Your task to perform on an android device: turn on showing notifications on the lock screen Image 0: 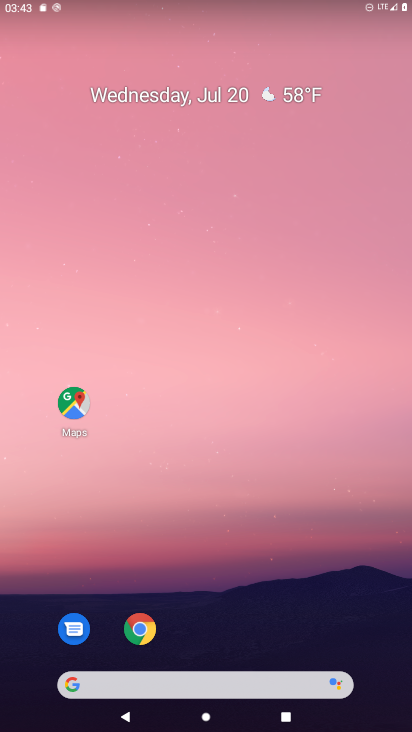
Step 0: press home button
Your task to perform on an android device: turn on showing notifications on the lock screen Image 1: 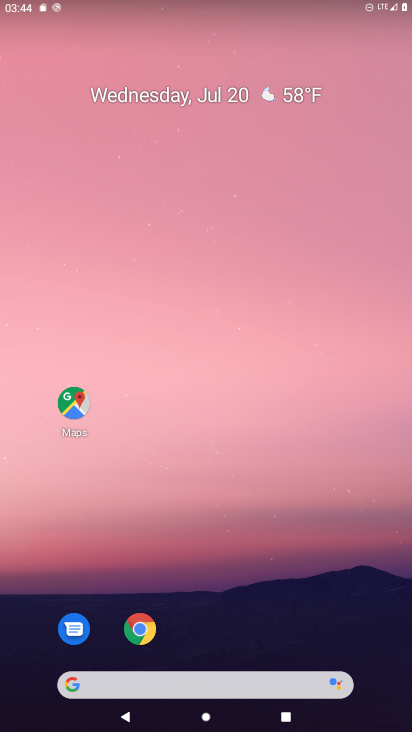
Step 1: drag from (191, 659) to (264, 4)
Your task to perform on an android device: turn on showing notifications on the lock screen Image 2: 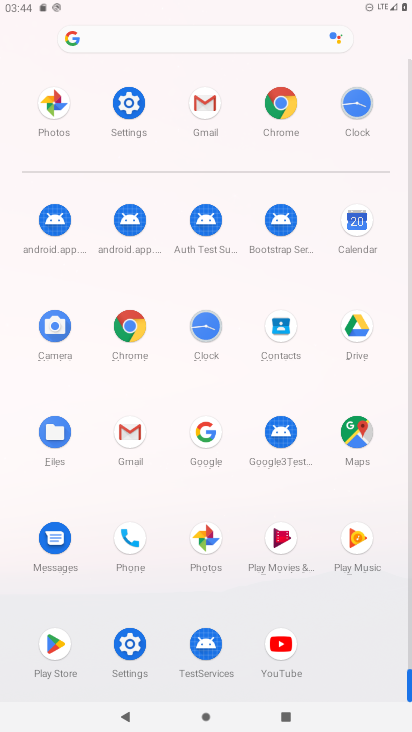
Step 2: click (132, 665)
Your task to perform on an android device: turn on showing notifications on the lock screen Image 3: 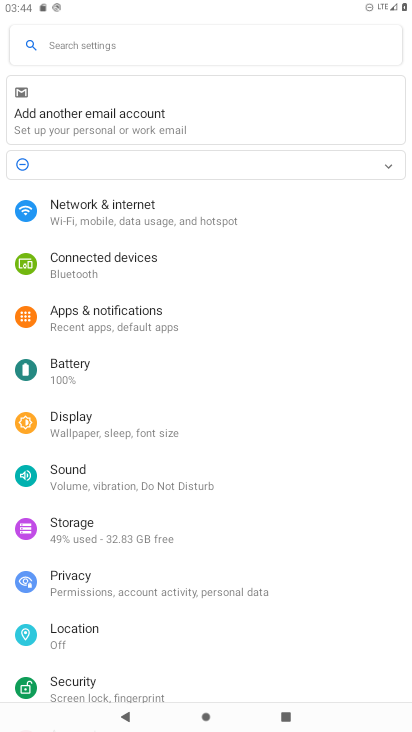
Step 3: click (142, 326)
Your task to perform on an android device: turn on showing notifications on the lock screen Image 4: 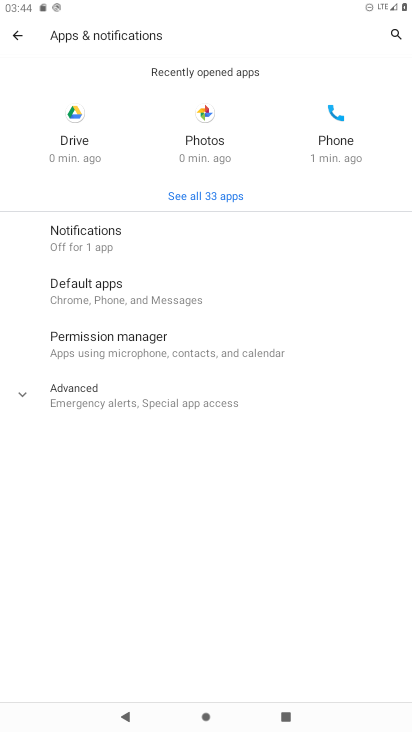
Step 4: click (125, 252)
Your task to perform on an android device: turn on showing notifications on the lock screen Image 5: 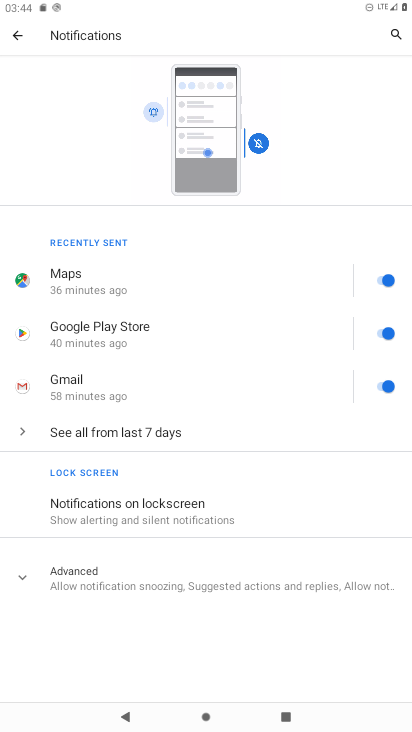
Step 5: click (79, 571)
Your task to perform on an android device: turn on showing notifications on the lock screen Image 6: 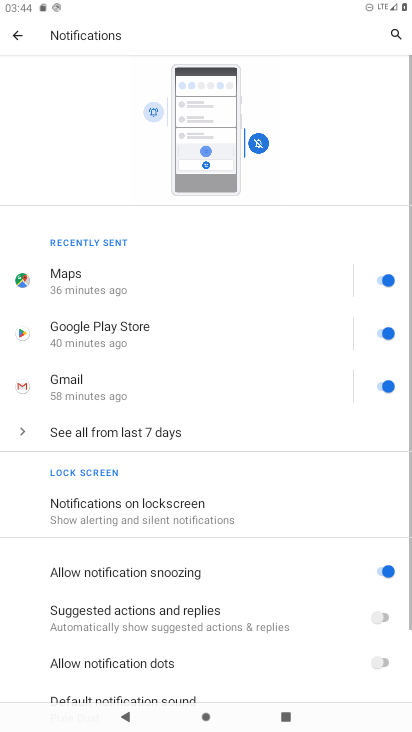
Step 6: drag from (79, 616) to (64, 436)
Your task to perform on an android device: turn on showing notifications on the lock screen Image 7: 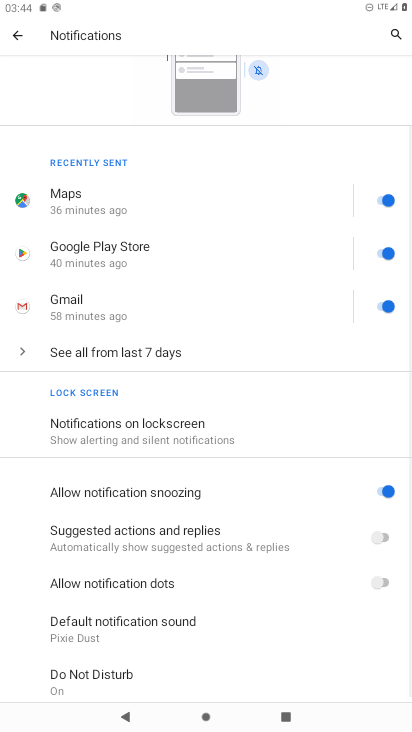
Step 7: click (64, 429)
Your task to perform on an android device: turn on showing notifications on the lock screen Image 8: 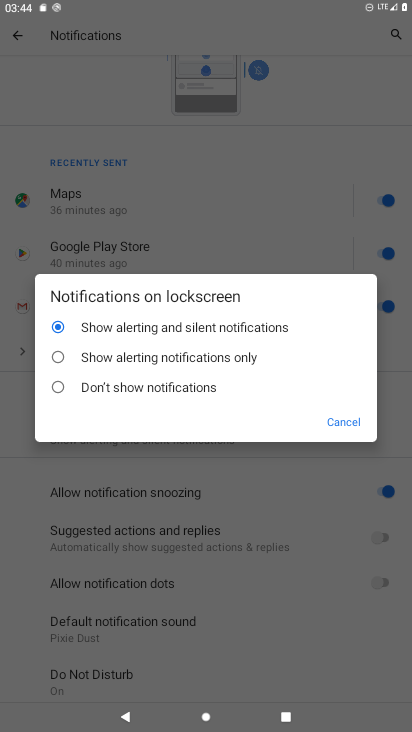
Step 8: click (119, 337)
Your task to perform on an android device: turn on showing notifications on the lock screen Image 9: 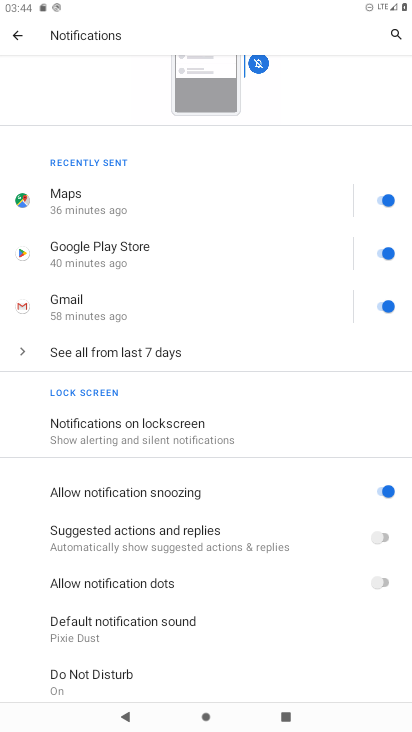
Step 9: task complete